Your task to perform on an android device: Open calendar and show me the third week of next month Image 0: 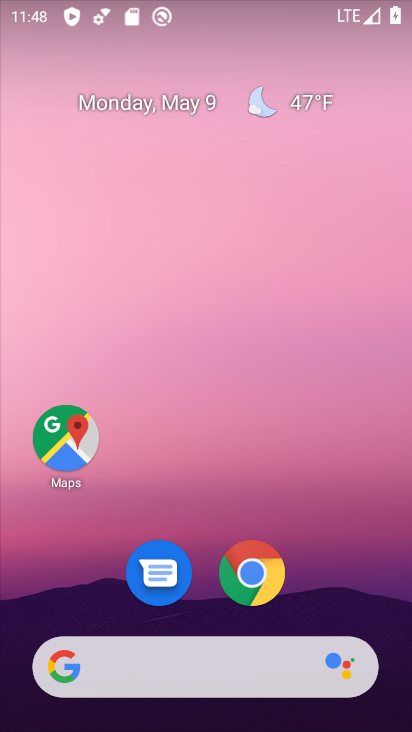
Step 0: drag from (219, 590) to (281, 204)
Your task to perform on an android device: Open calendar and show me the third week of next month Image 1: 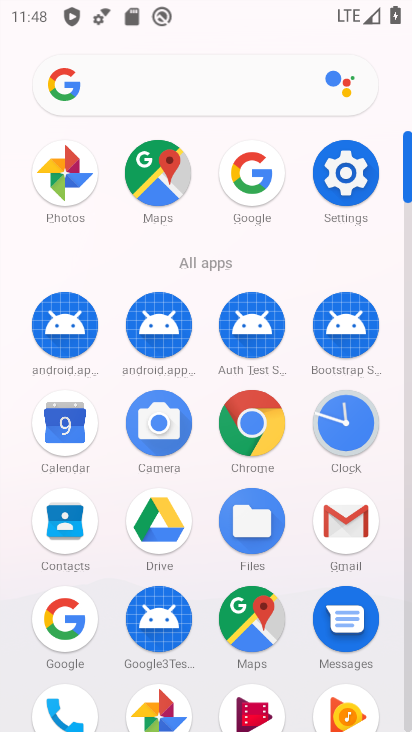
Step 1: click (72, 429)
Your task to perform on an android device: Open calendar and show me the third week of next month Image 2: 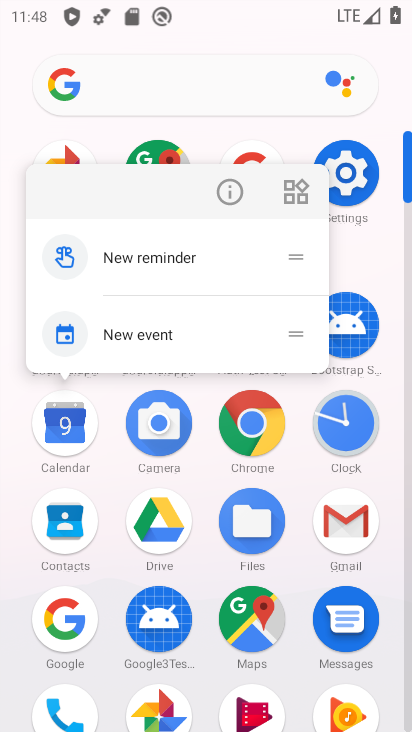
Step 2: click (224, 186)
Your task to perform on an android device: Open calendar and show me the third week of next month Image 3: 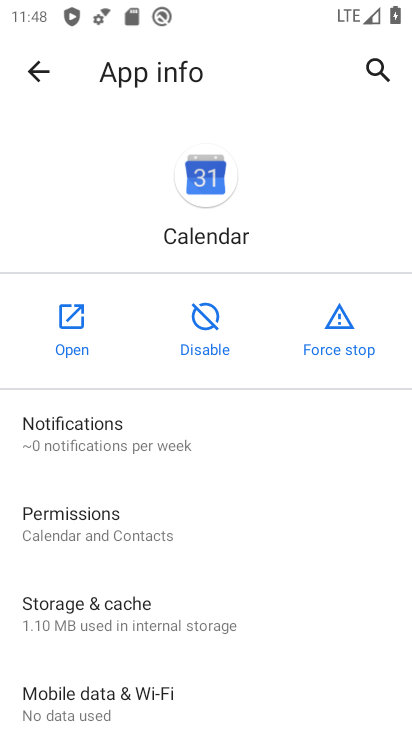
Step 3: click (75, 315)
Your task to perform on an android device: Open calendar and show me the third week of next month Image 4: 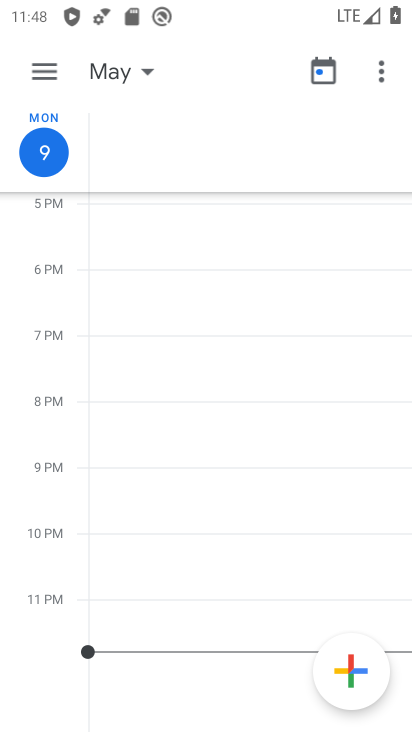
Step 4: click (124, 71)
Your task to perform on an android device: Open calendar and show me the third week of next month Image 5: 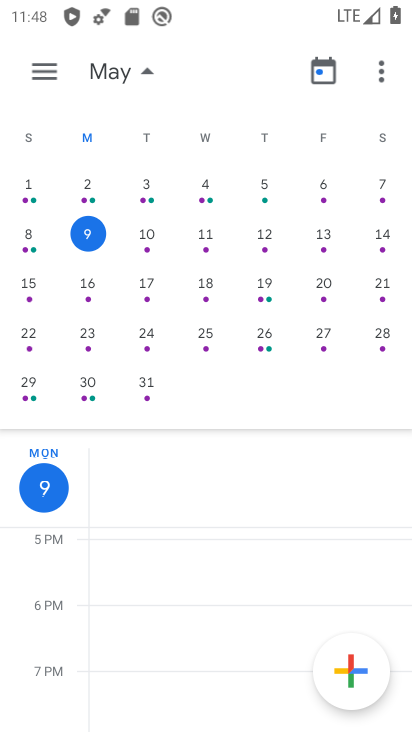
Step 5: drag from (281, 288) to (6, 256)
Your task to perform on an android device: Open calendar and show me the third week of next month Image 6: 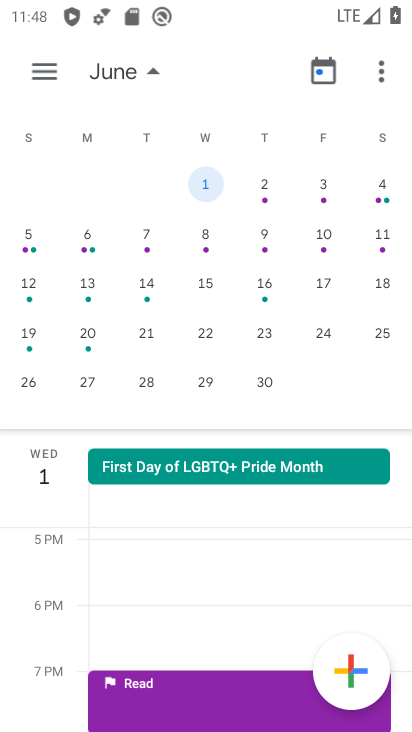
Step 6: click (204, 290)
Your task to perform on an android device: Open calendar and show me the third week of next month Image 7: 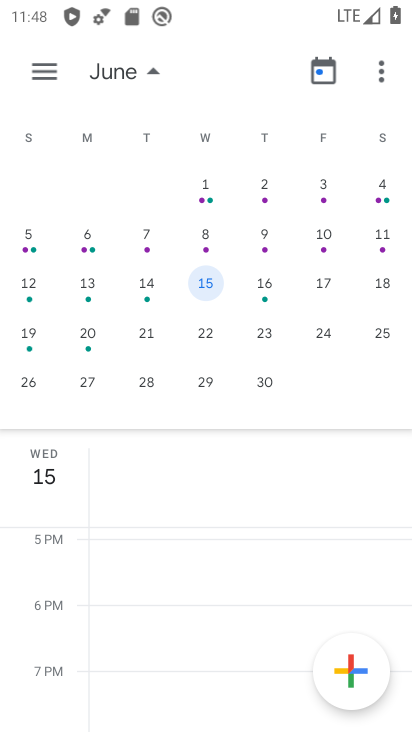
Step 7: task complete